Your task to perform on an android device: Search for Italian restaurants on Maps Image 0: 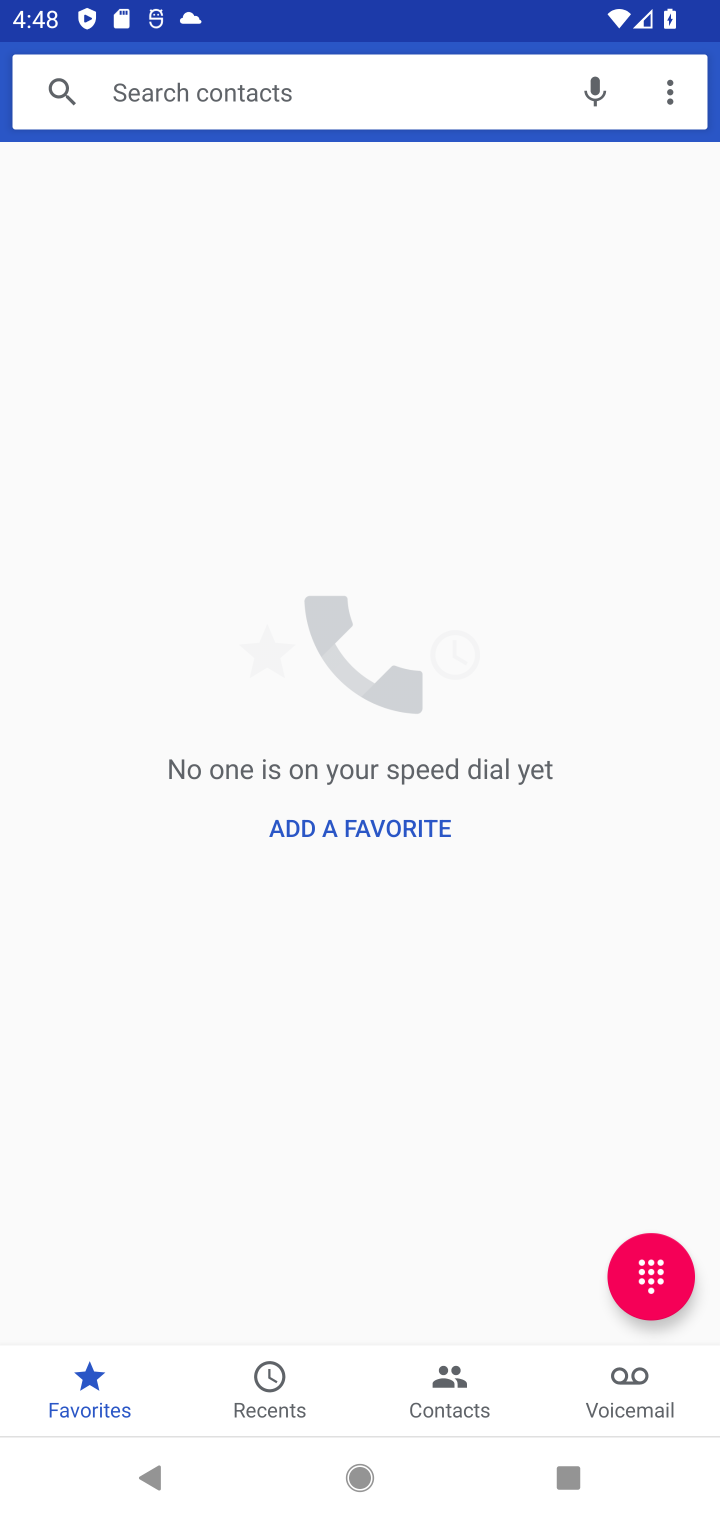
Step 0: press back button
Your task to perform on an android device: Search for Italian restaurants on Maps Image 1: 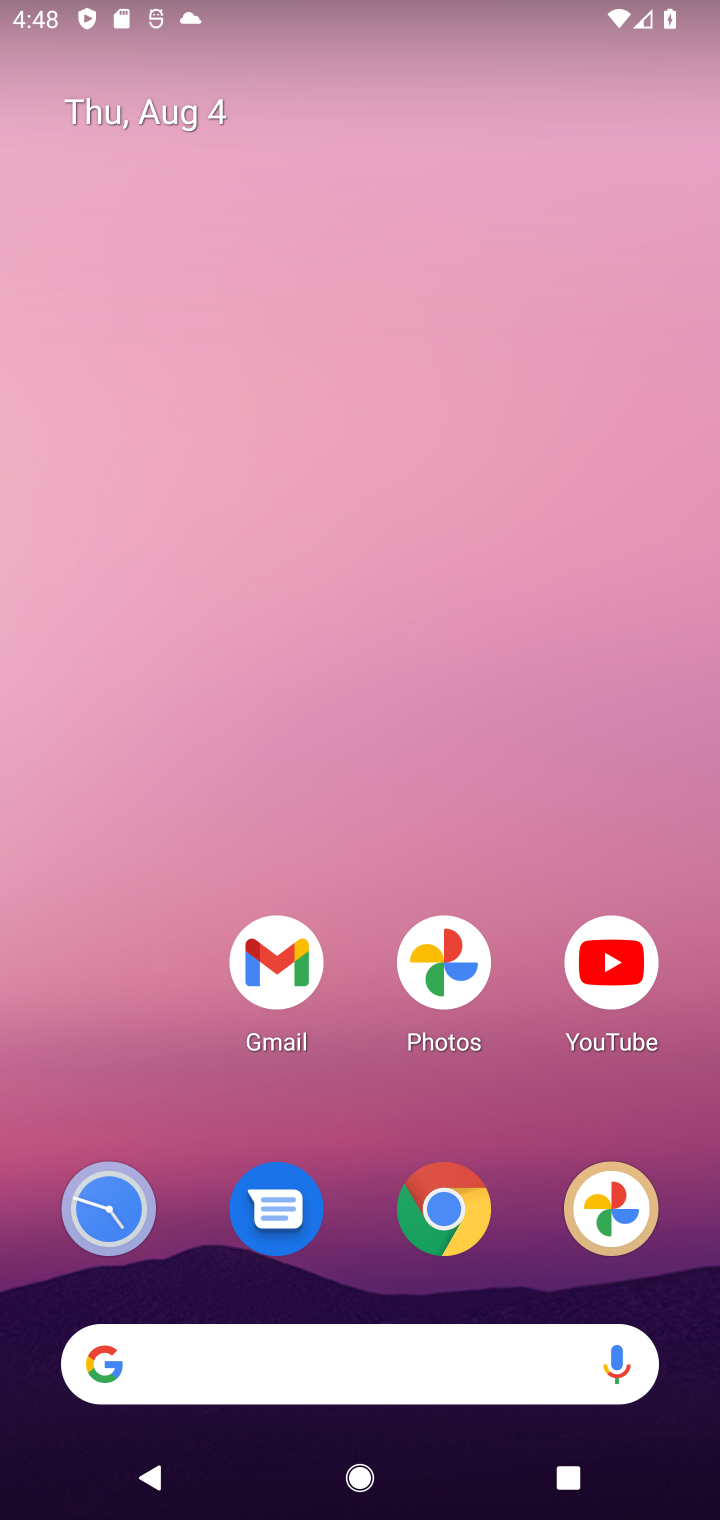
Step 1: drag from (347, 1194) to (293, 202)
Your task to perform on an android device: Search for Italian restaurants on Maps Image 2: 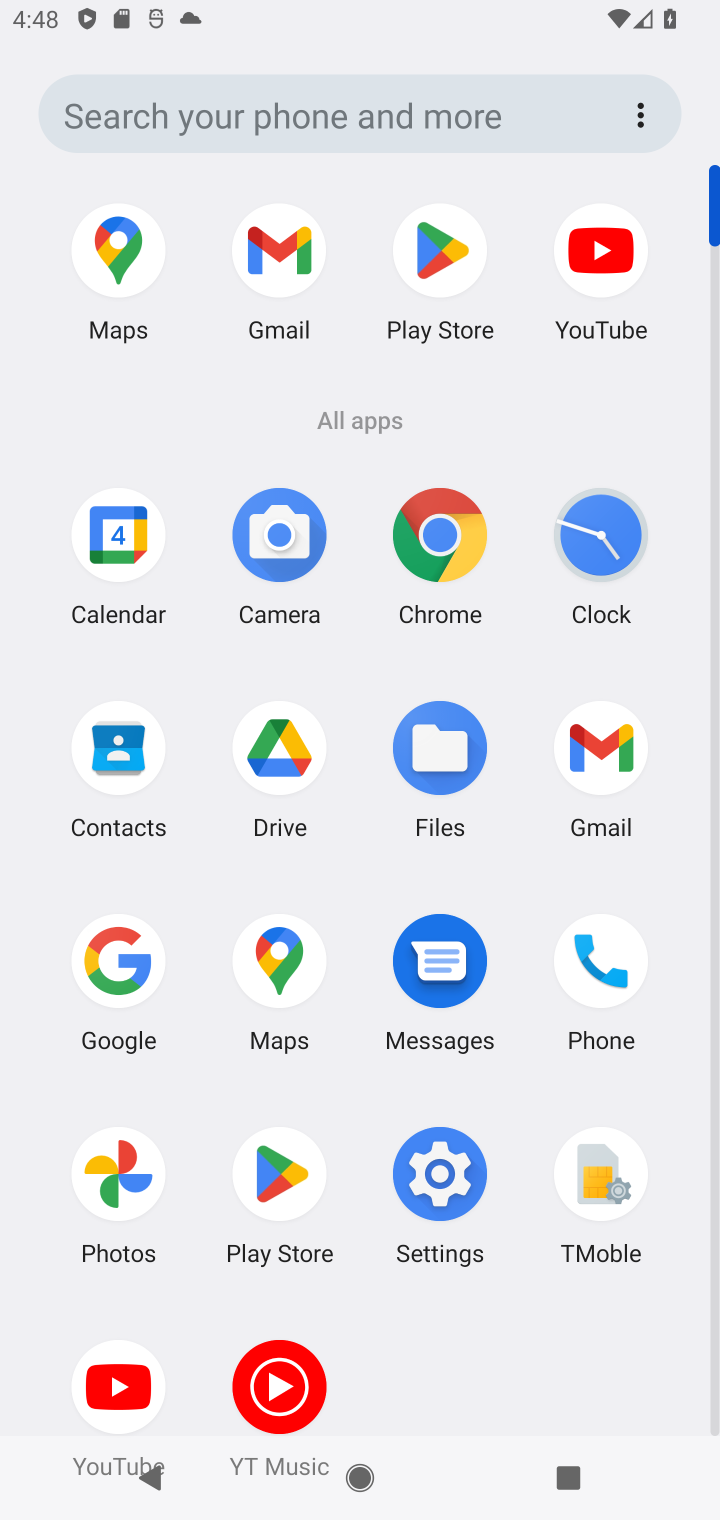
Step 2: click (282, 962)
Your task to perform on an android device: Search for Italian restaurants on Maps Image 3: 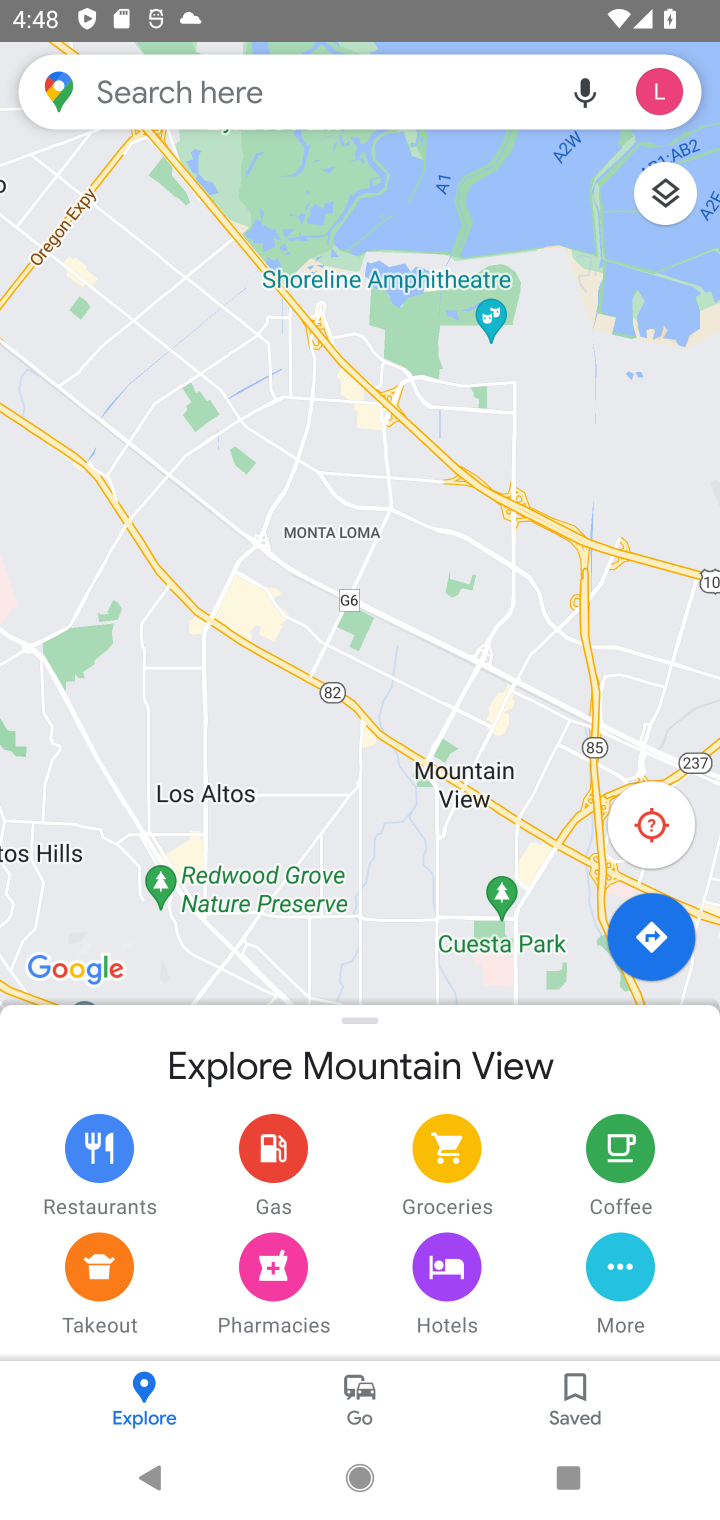
Step 3: click (359, 110)
Your task to perform on an android device: Search for Italian restaurants on Maps Image 4: 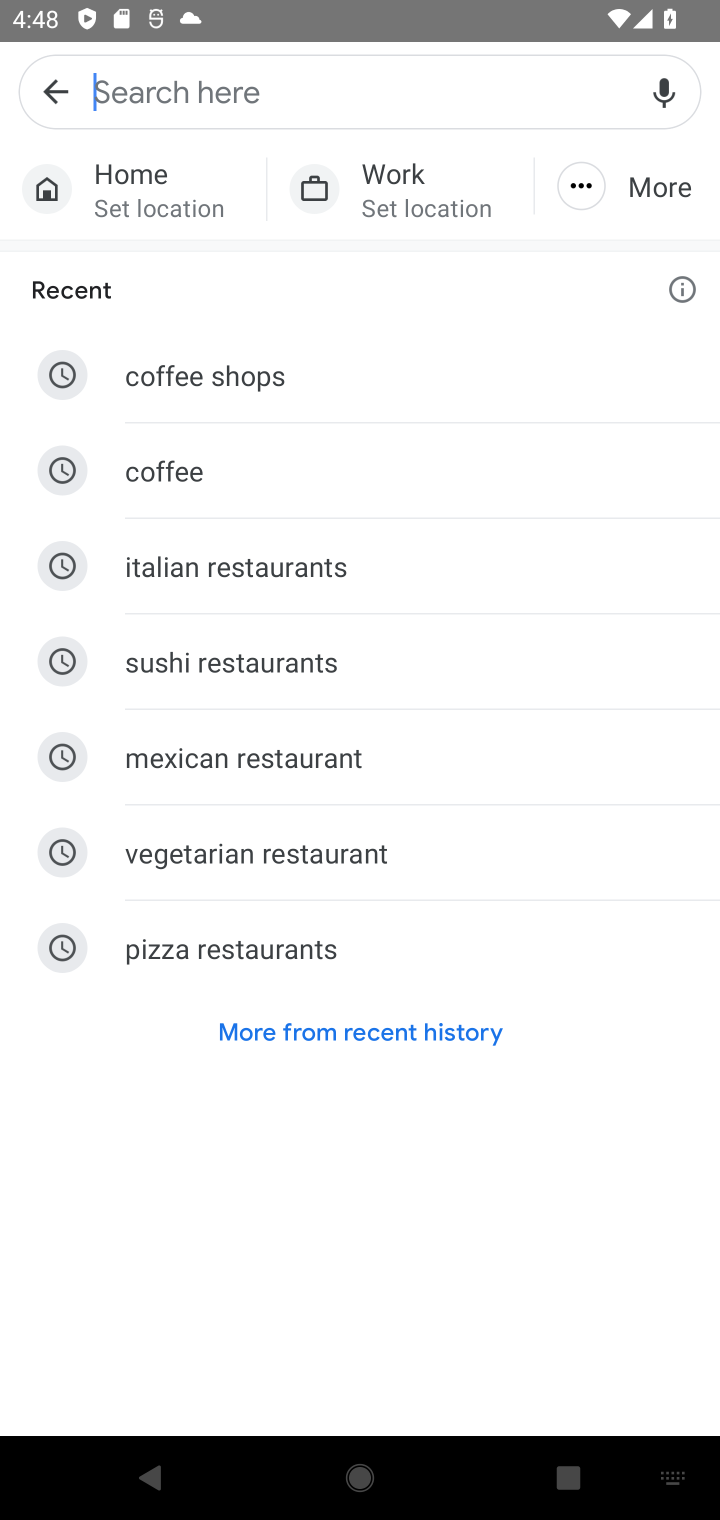
Step 4: click (311, 563)
Your task to perform on an android device: Search for Italian restaurants on Maps Image 5: 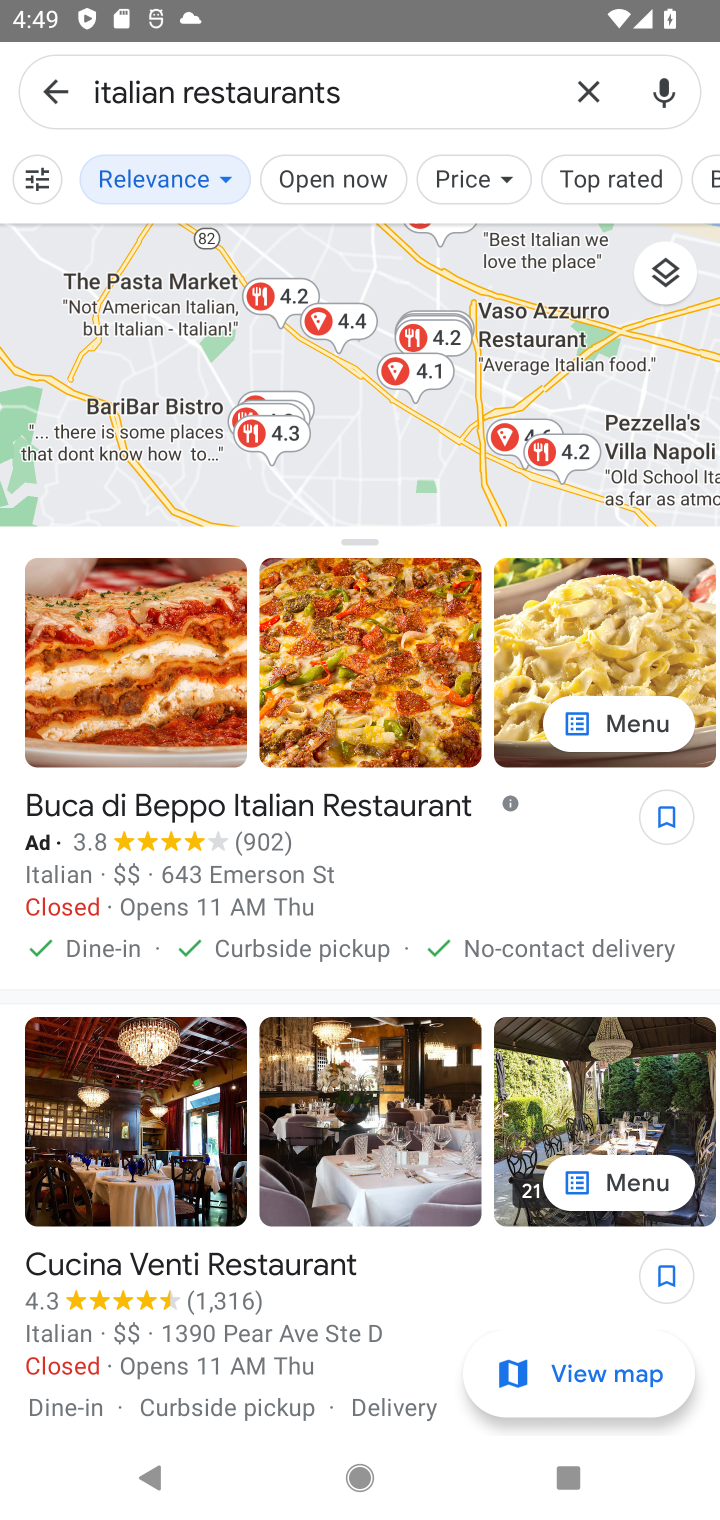
Step 5: task complete